Your task to perform on an android device: Do I have any events today? Image 0: 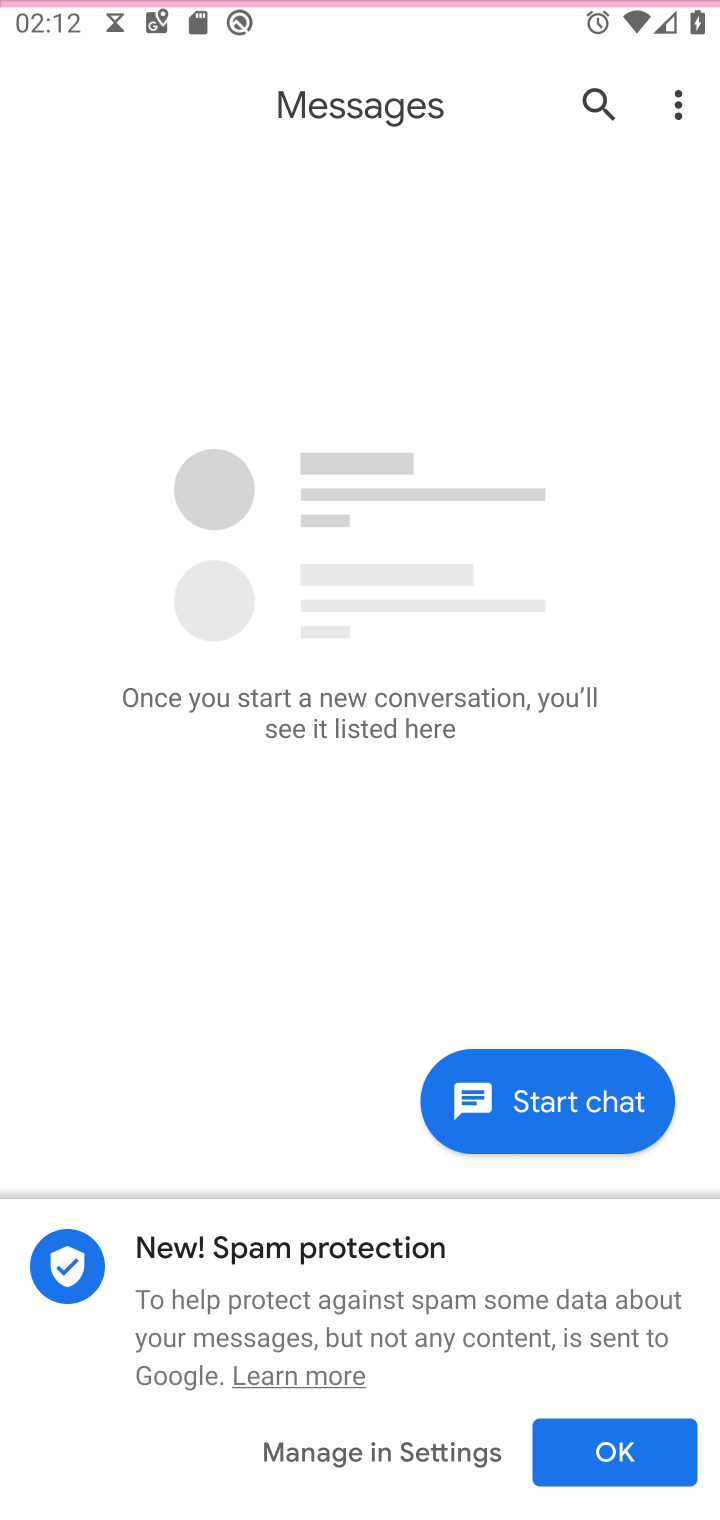
Step 0: press home button
Your task to perform on an android device: Do I have any events today? Image 1: 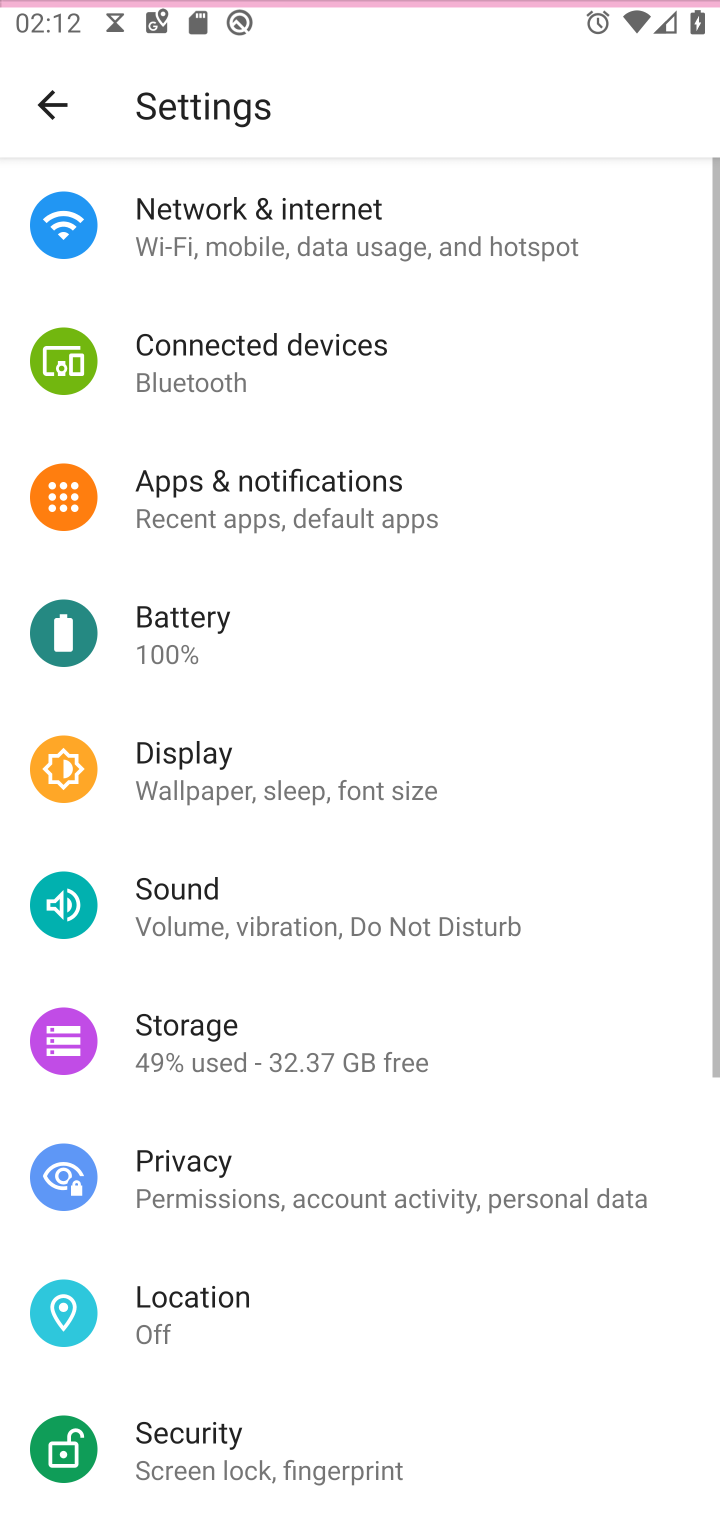
Step 1: press home button
Your task to perform on an android device: Do I have any events today? Image 2: 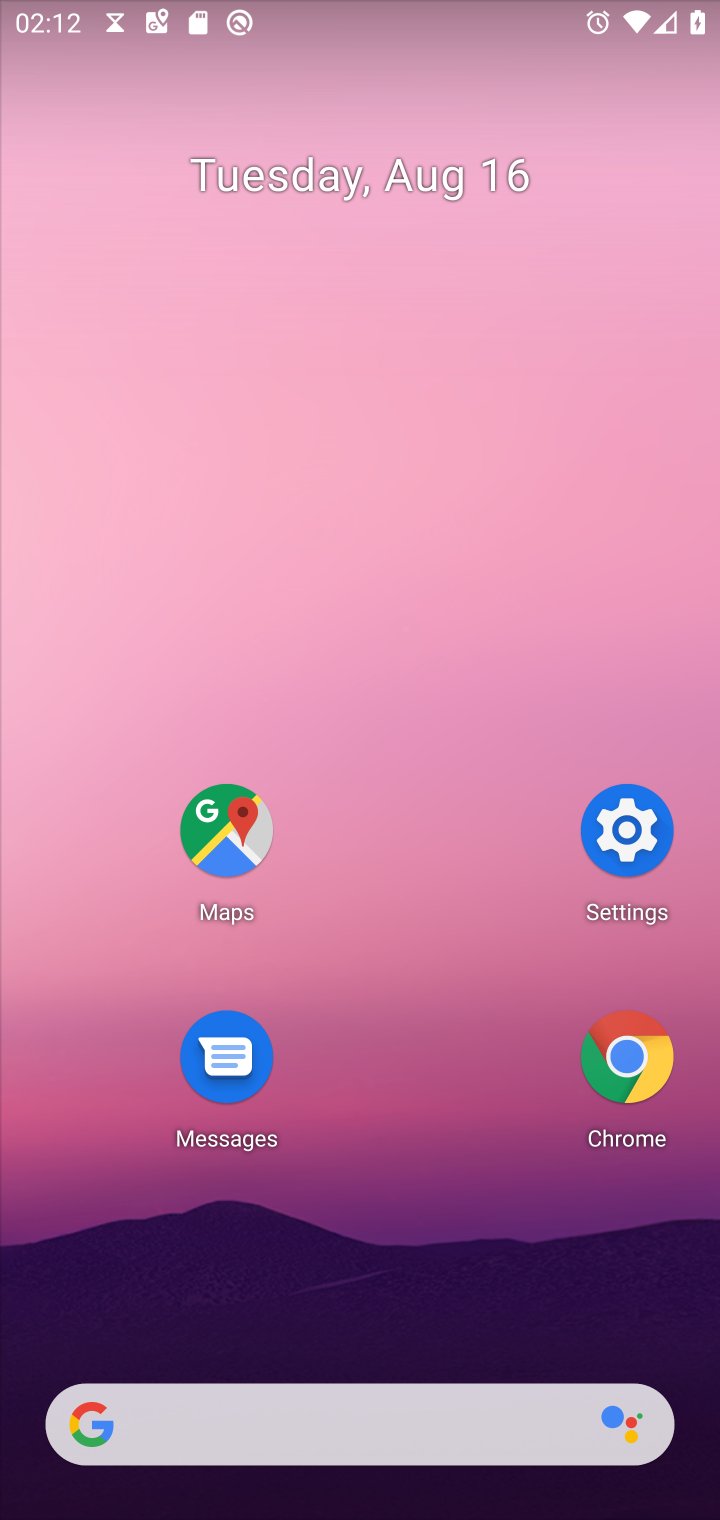
Step 2: drag from (544, 827) to (620, 271)
Your task to perform on an android device: Do I have any events today? Image 3: 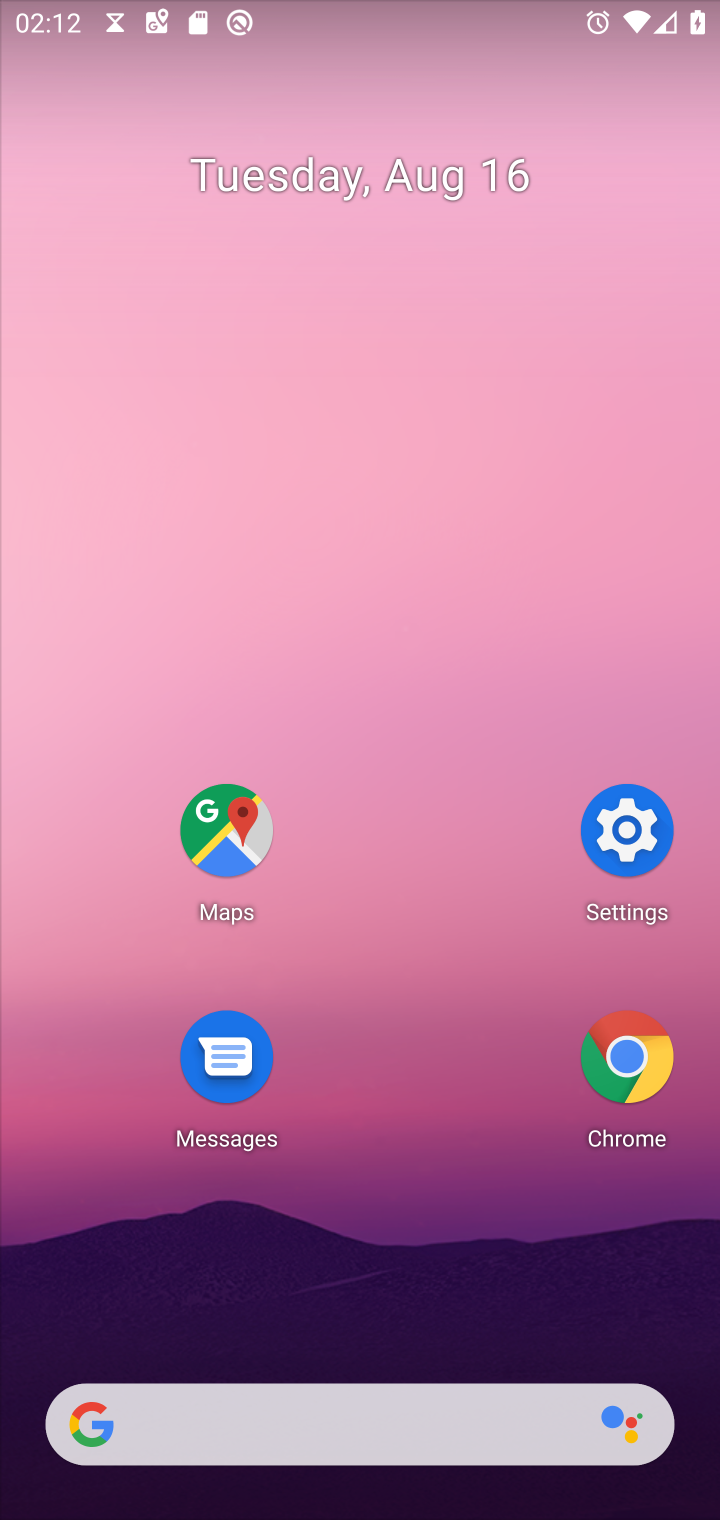
Step 3: drag from (247, 1338) to (444, 152)
Your task to perform on an android device: Do I have any events today? Image 4: 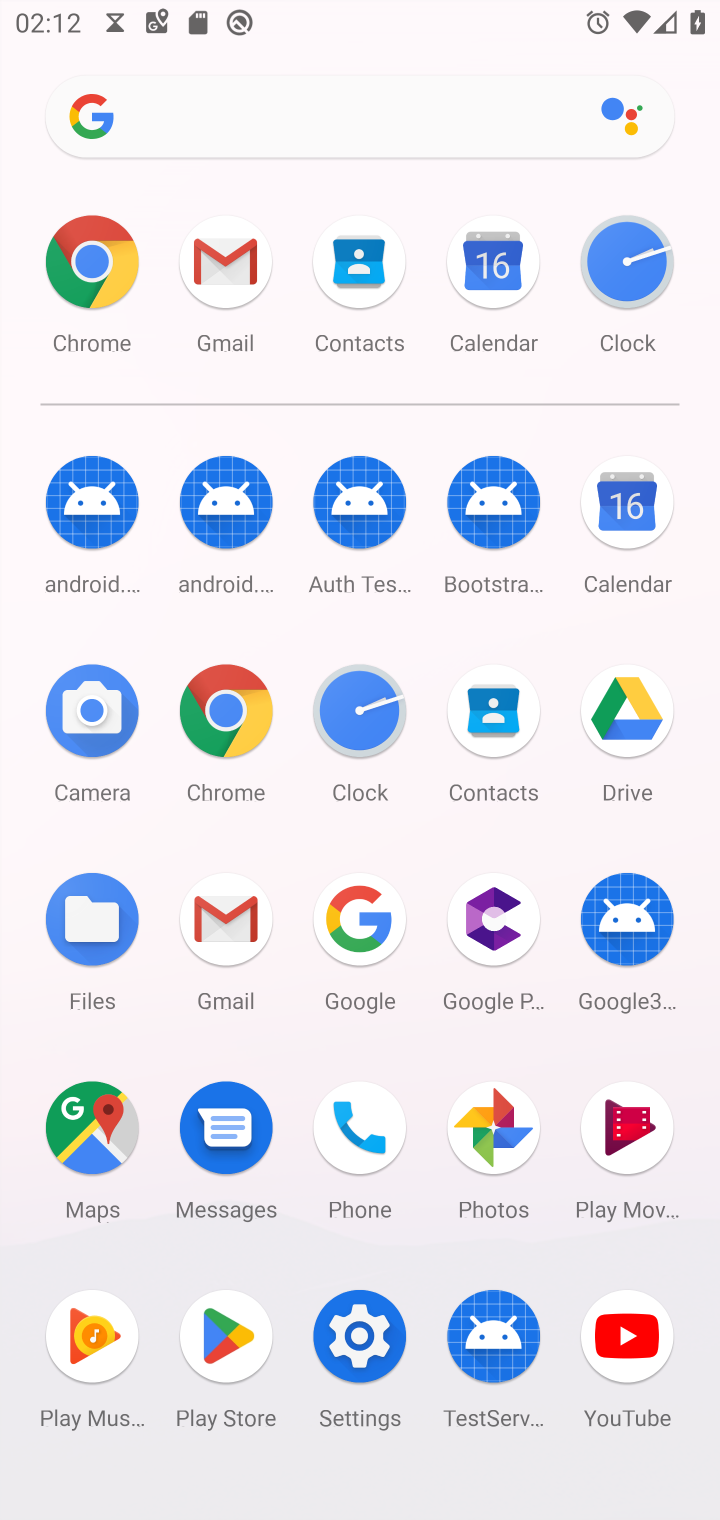
Step 4: click (623, 522)
Your task to perform on an android device: Do I have any events today? Image 5: 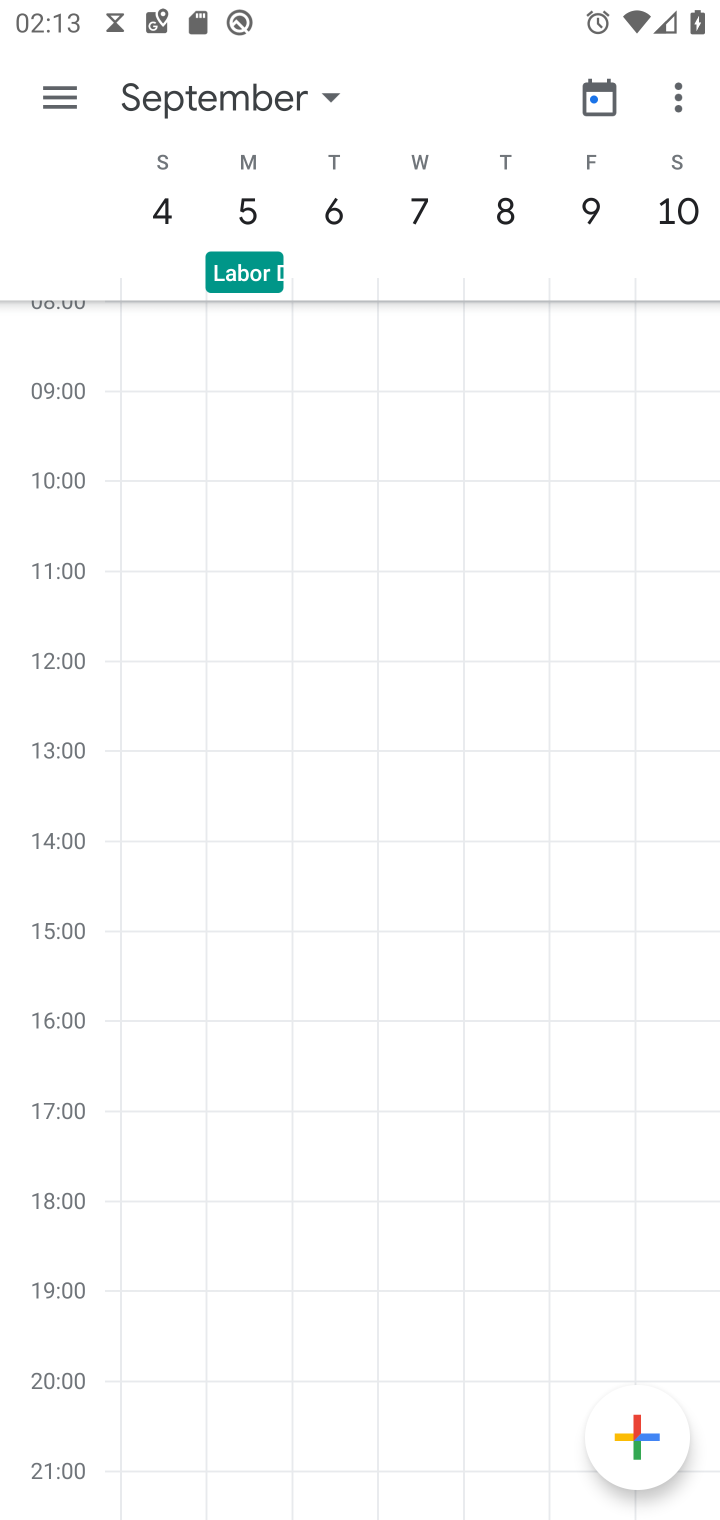
Step 5: click (202, 110)
Your task to perform on an android device: Do I have any events today? Image 6: 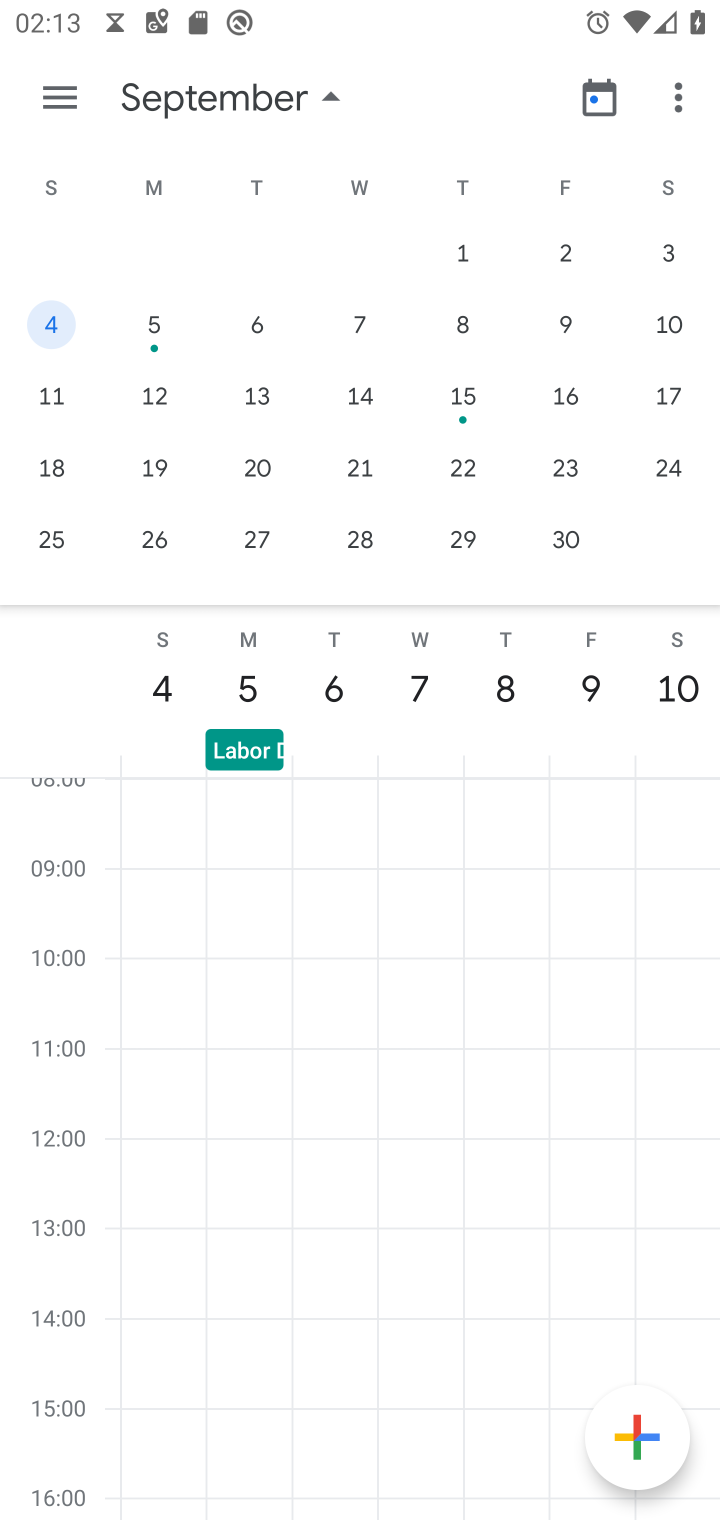
Step 6: drag from (91, 416) to (711, 406)
Your task to perform on an android device: Do I have any events today? Image 7: 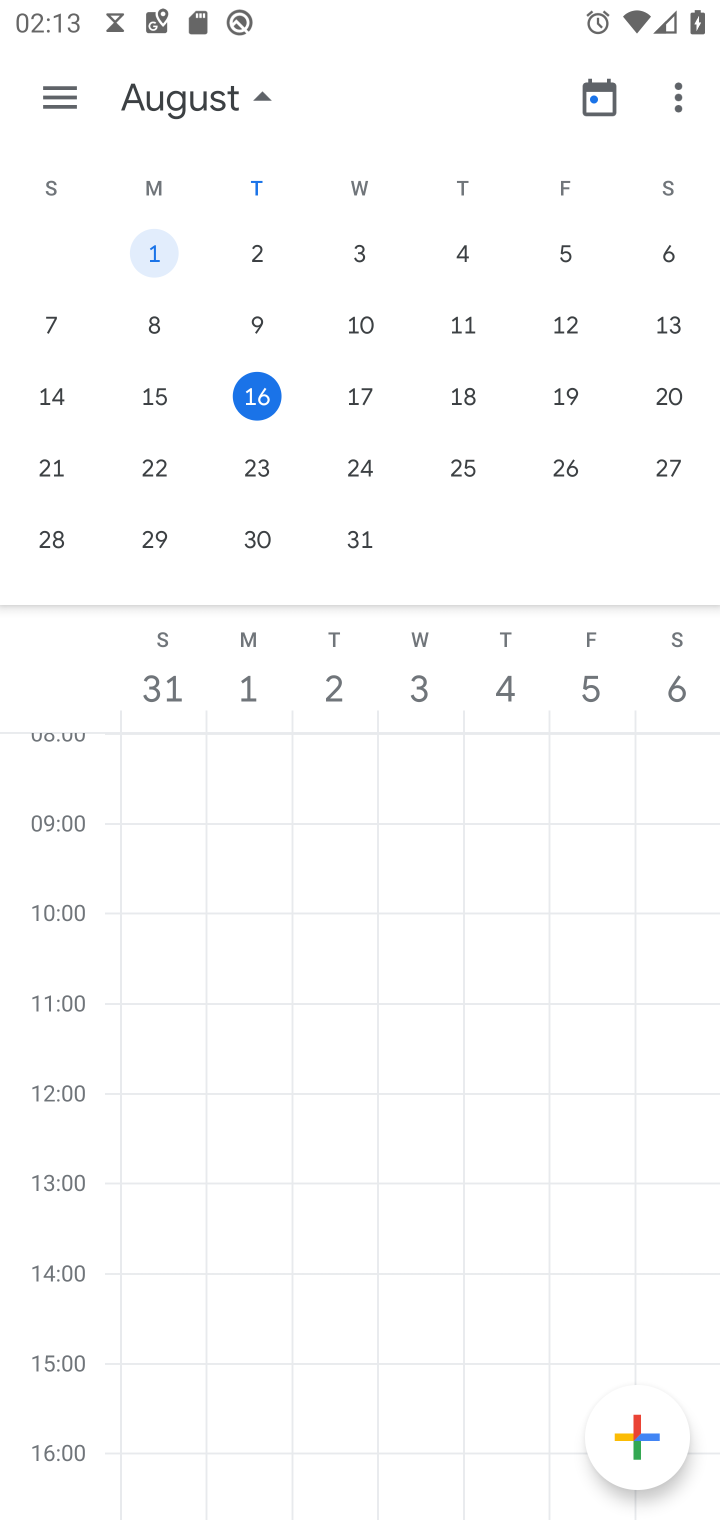
Step 7: click (267, 390)
Your task to perform on an android device: Do I have any events today? Image 8: 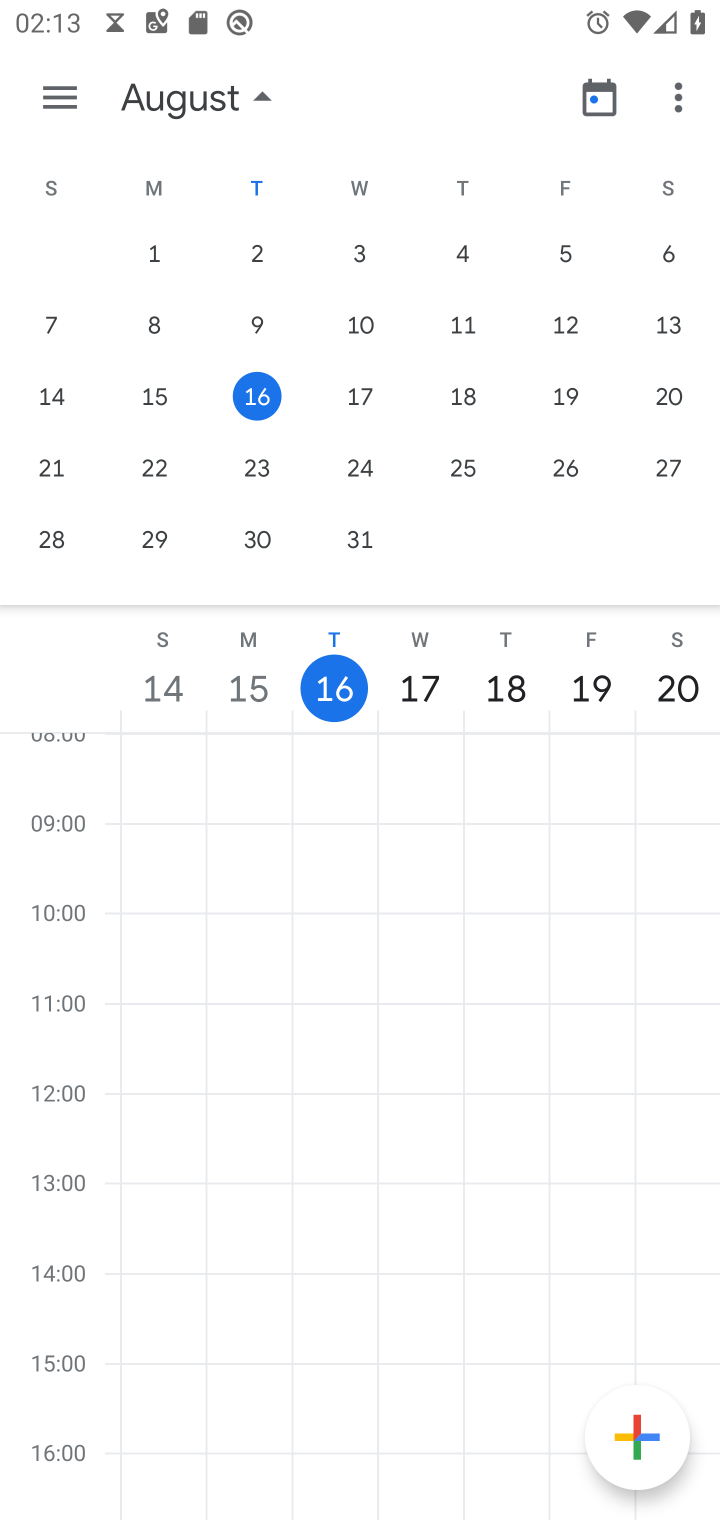
Step 8: click (70, 86)
Your task to perform on an android device: Do I have any events today? Image 9: 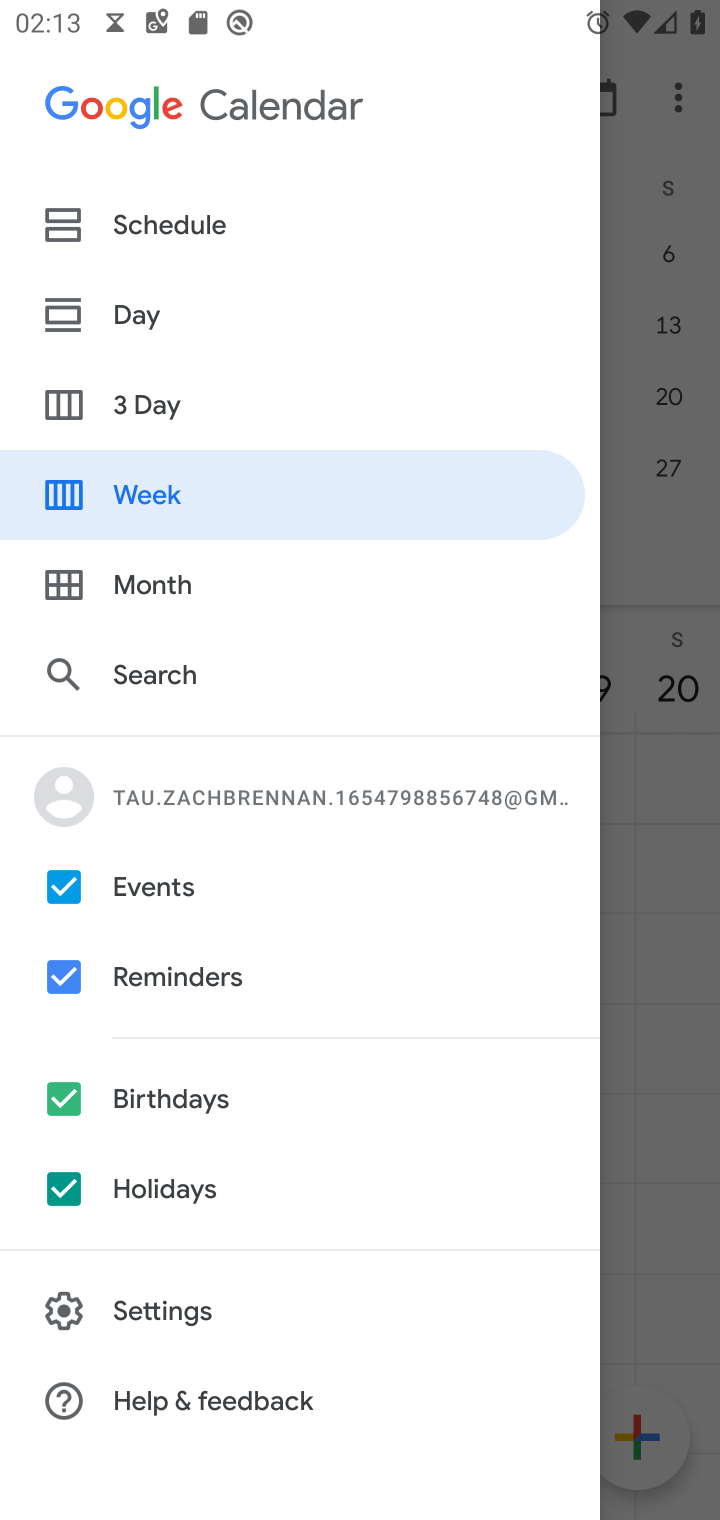
Step 9: click (147, 321)
Your task to perform on an android device: Do I have any events today? Image 10: 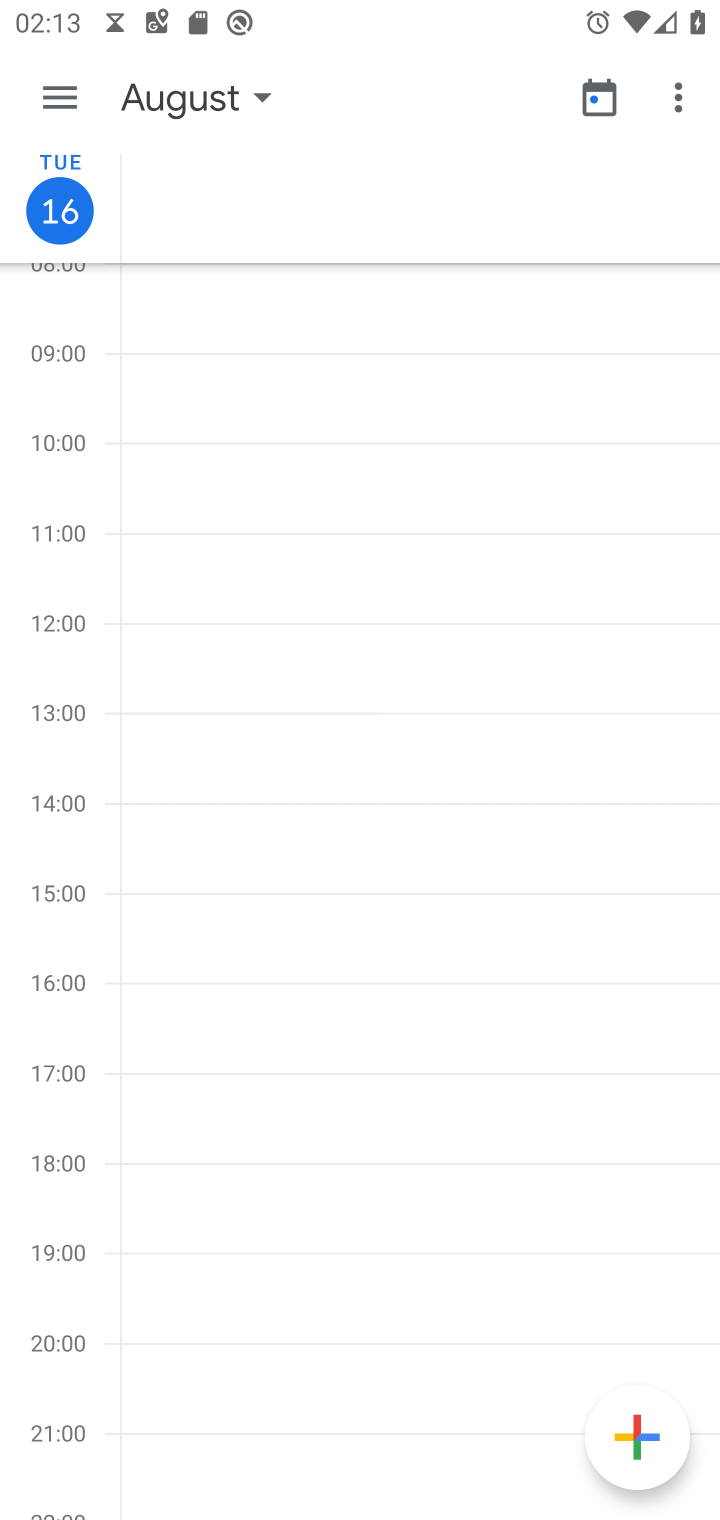
Step 10: click (59, 98)
Your task to perform on an android device: Do I have any events today? Image 11: 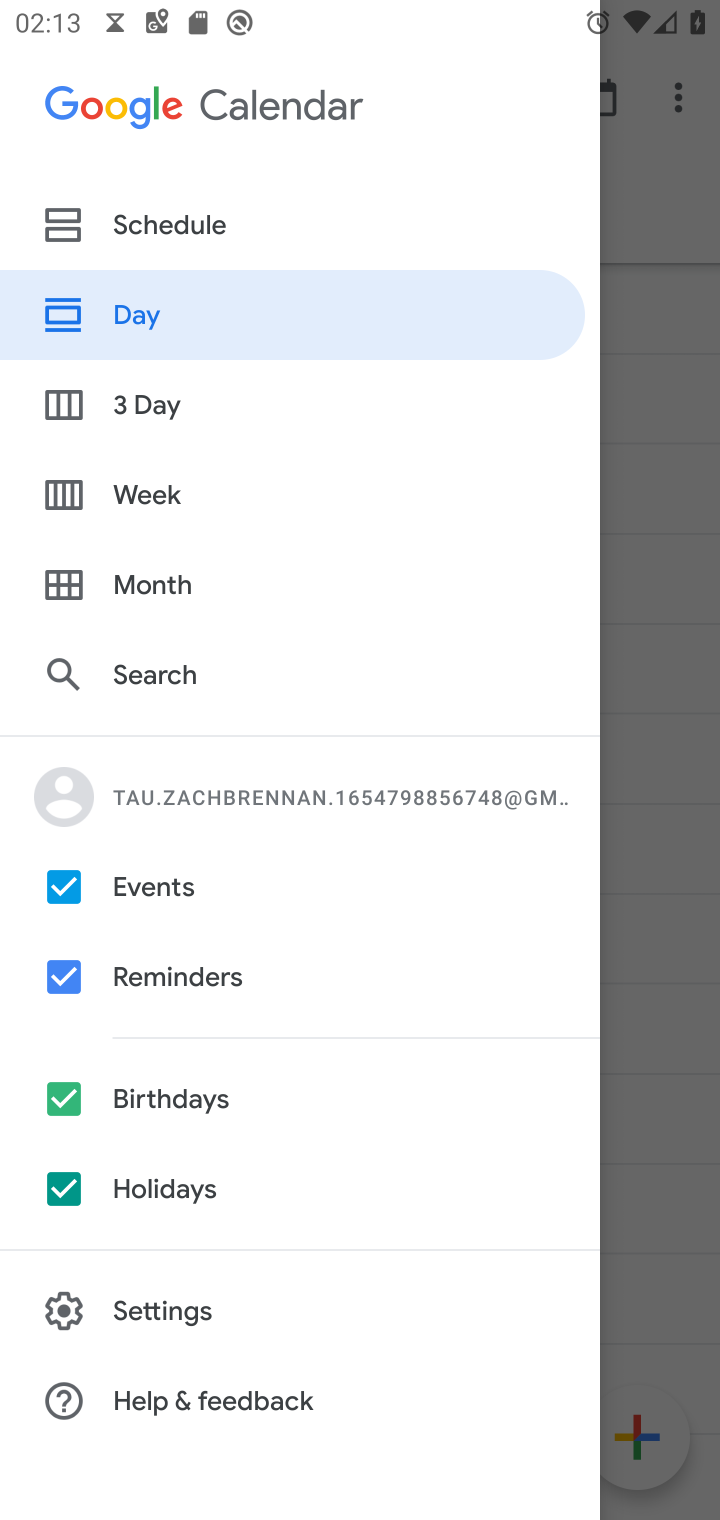
Step 11: click (212, 231)
Your task to perform on an android device: Do I have any events today? Image 12: 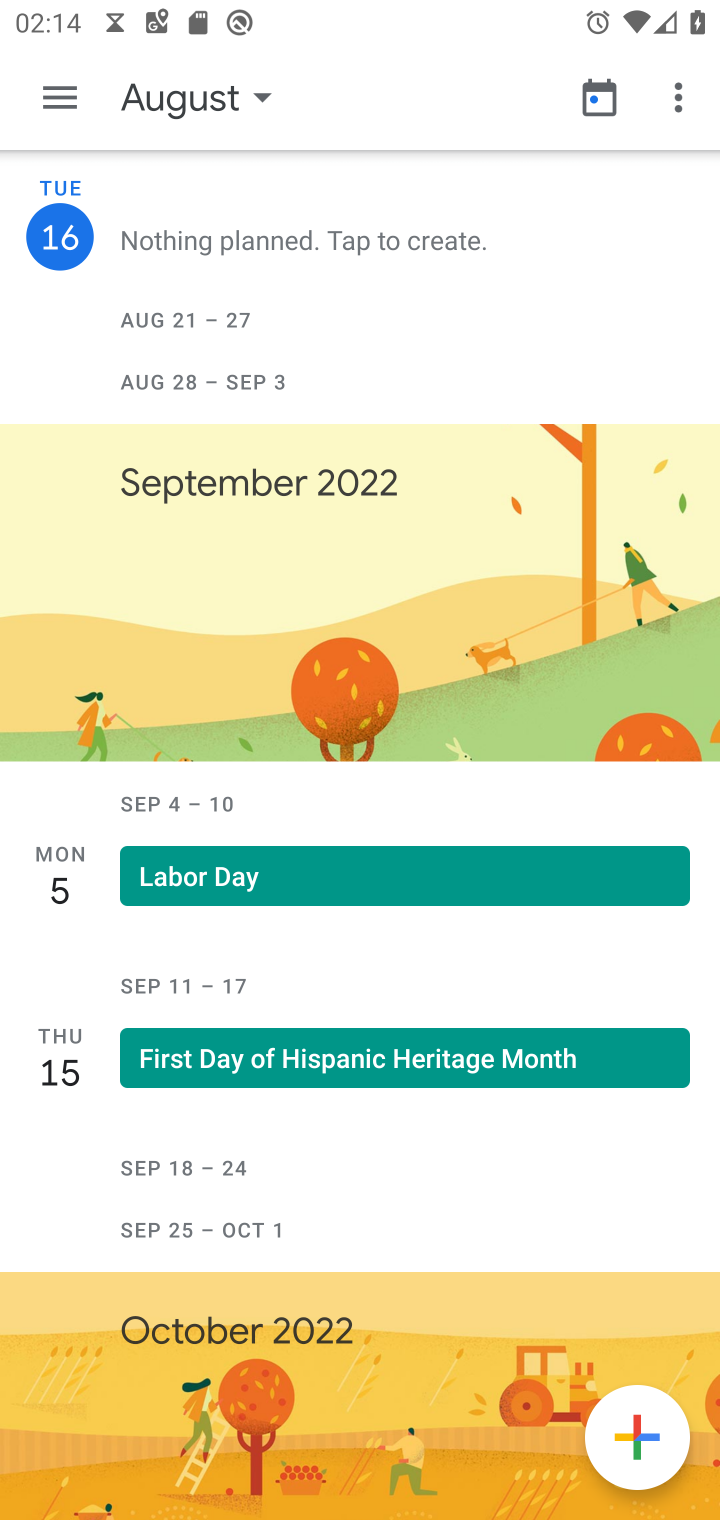
Step 12: task complete